Your task to perform on an android device: check data usage Image 0: 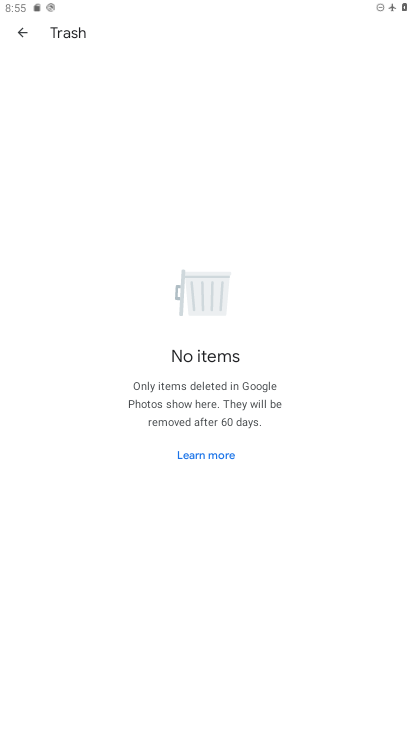
Step 0: press home button
Your task to perform on an android device: check data usage Image 1: 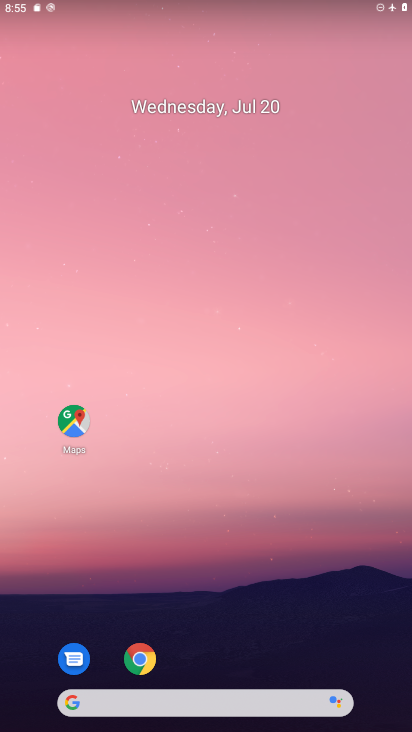
Step 1: drag from (129, 11) to (136, 389)
Your task to perform on an android device: check data usage Image 2: 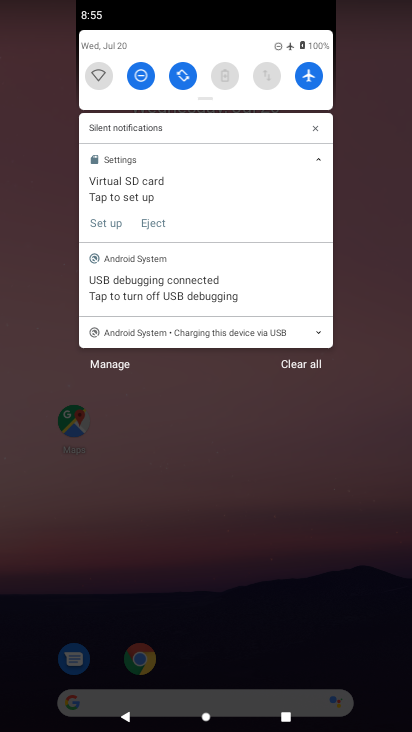
Step 2: drag from (203, 66) to (177, 442)
Your task to perform on an android device: check data usage Image 3: 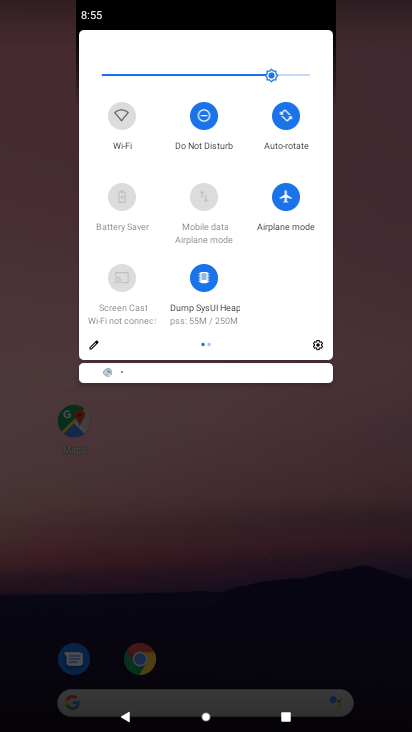
Step 3: click (219, 199)
Your task to perform on an android device: check data usage Image 4: 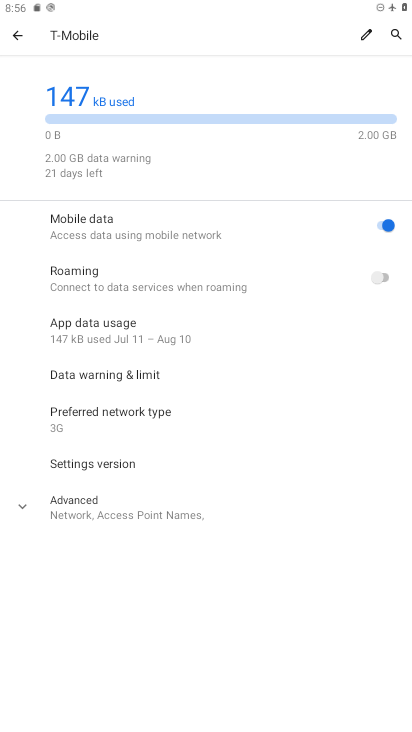
Step 4: task complete